Your task to perform on an android device: Open eBay Image 0: 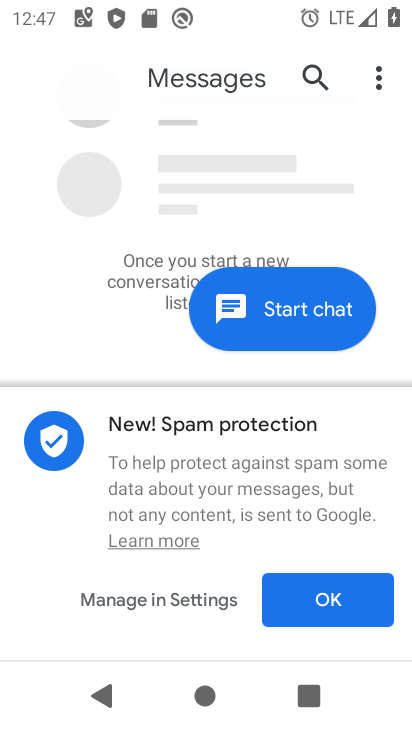
Step 0: press home button
Your task to perform on an android device: Open eBay Image 1: 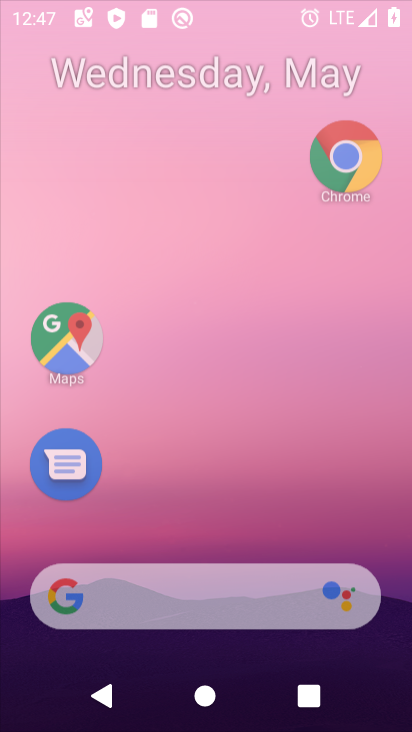
Step 1: drag from (202, 585) to (115, 0)
Your task to perform on an android device: Open eBay Image 2: 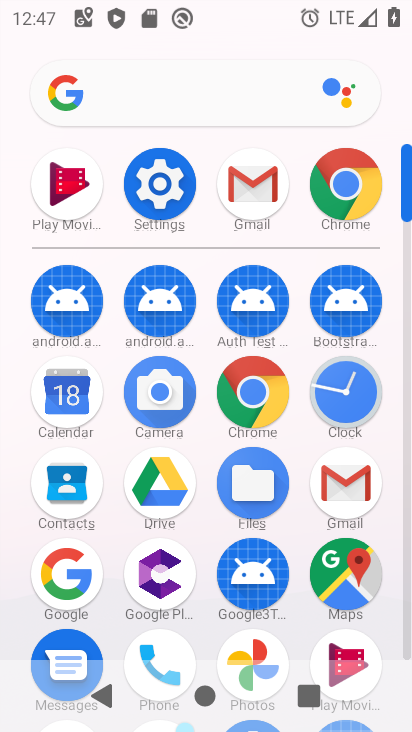
Step 2: click (217, 95)
Your task to perform on an android device: Open eBay Image 3: 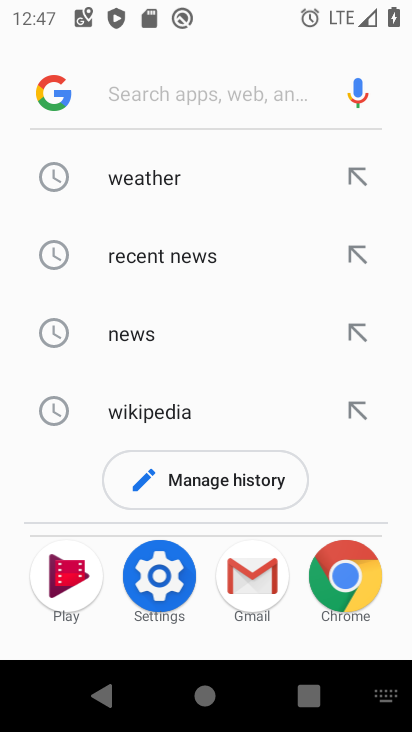
Step 3: type "ebay"
Your task to perform on an android device: Open eBay Image 4: 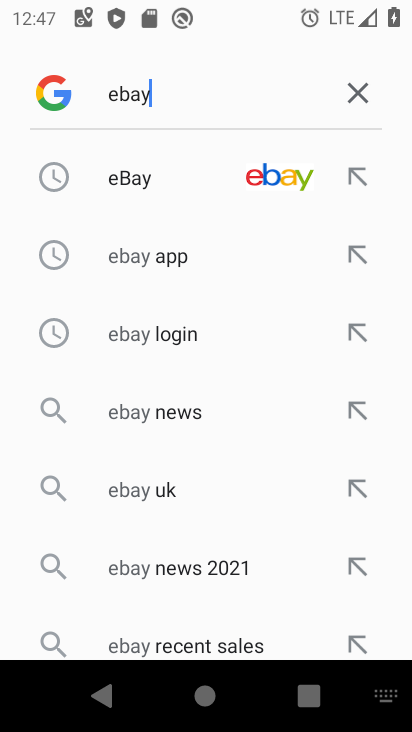
Step 4: click (220, 192)
Your task to perform on an android device: Open eBay Image 5: 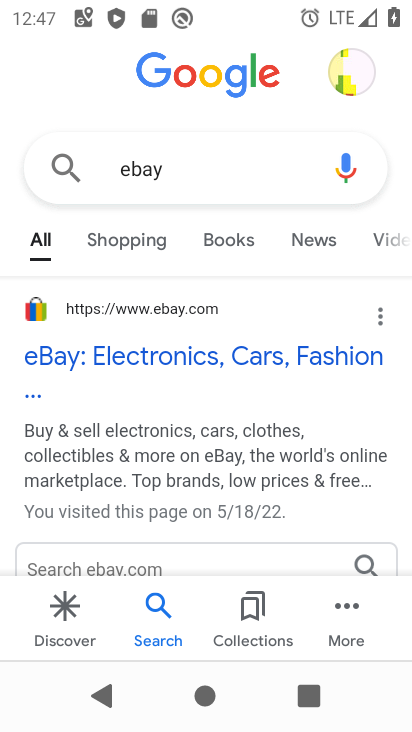
Step 5: task complete